Your task to perform on an android device: Open eBay Image 0: 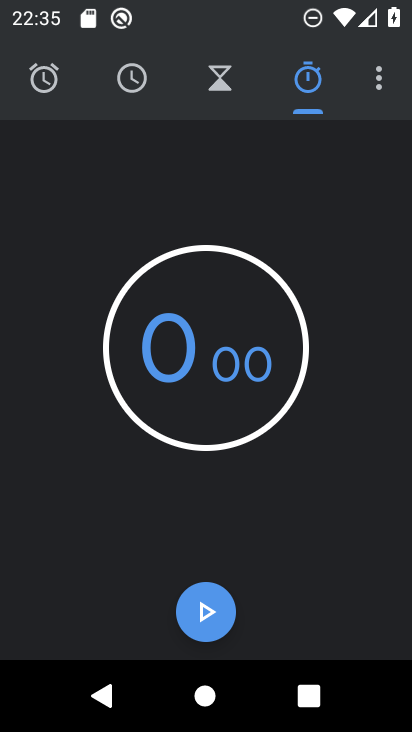
Step 0: press home button
Your task to perform on an android device: Open eBay Image 1: 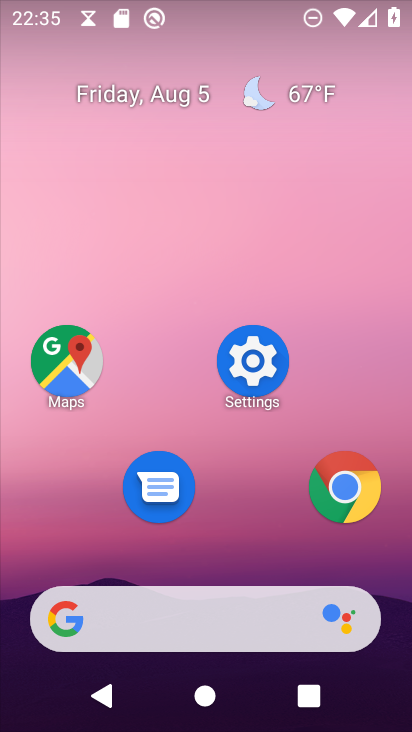
Step 1: click (347, 492)
Your task to perform on an android device: Open eBay Image 2: 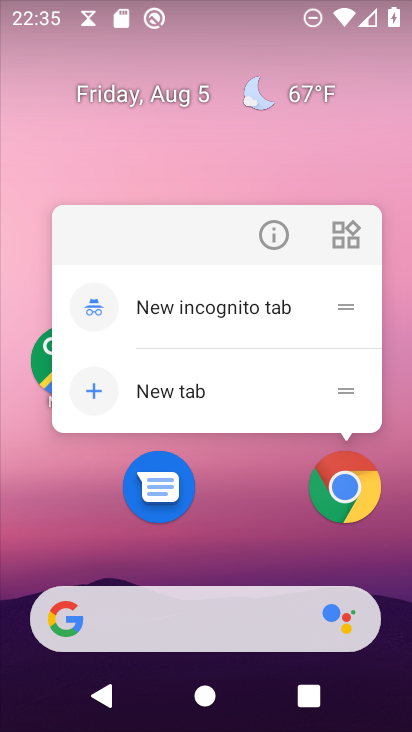
Step 2: click (347, 493)
Your task to perform on an android device: Open eBay Image 3: 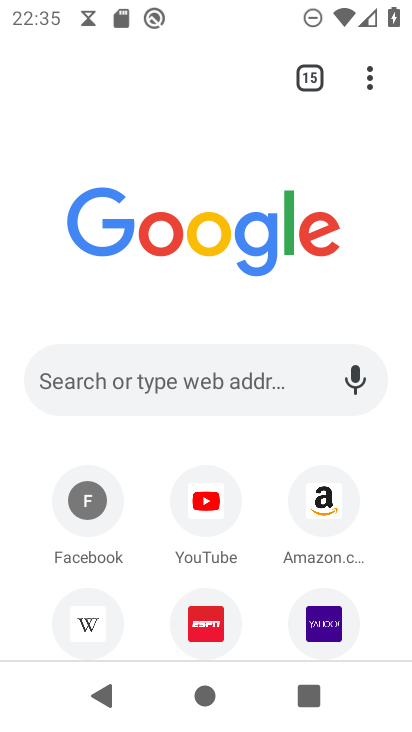
Step 3: drag from (256, 497) to (349, 193)
Your task to perform on an android device: Open eBay Image 4: 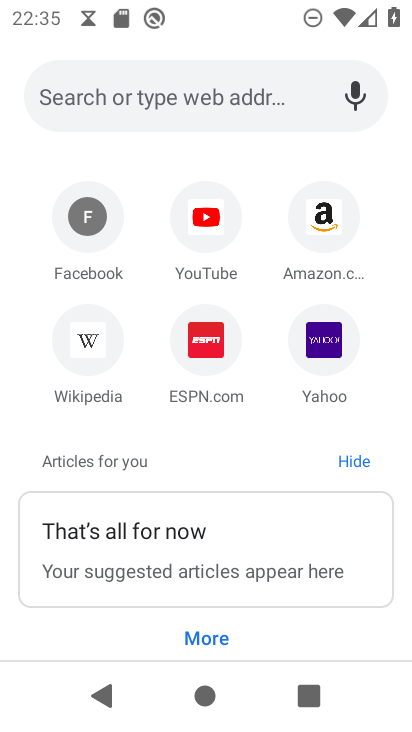
Step 4: drag from (271, 223) to (265, 388)
Your task to perform on an android device: Open eBay Image 5: 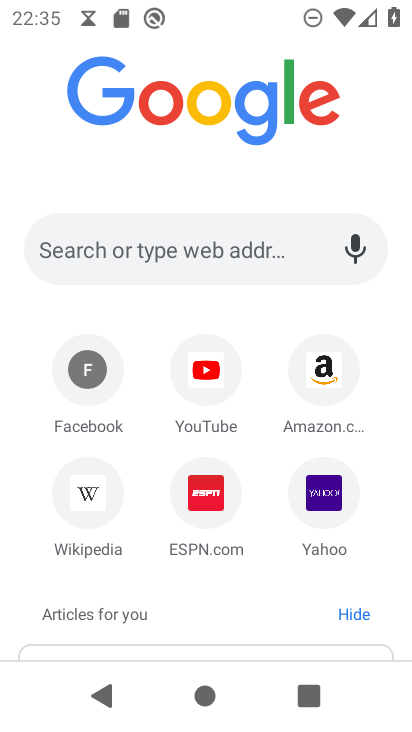
Step 5: click (114, 256)
Your task to perform on an android device: Open eBay Image 6: 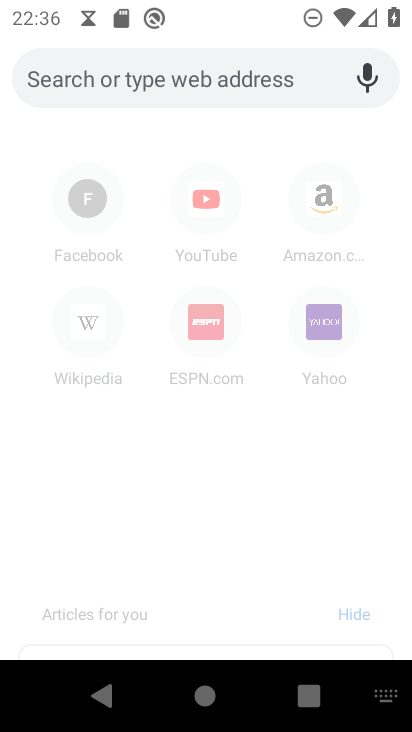
Step 6: type "eBay"
Your task to perform on an android device: Open eBay Image 7: 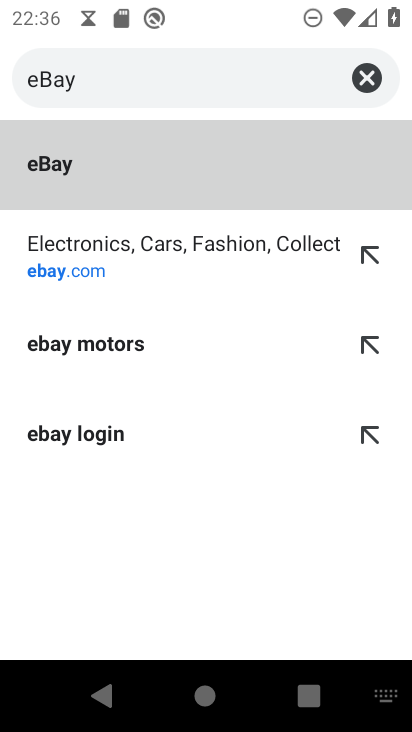
Step 7: click (78, 164)
Your task to perform on an android device: Open eBay Image 8: 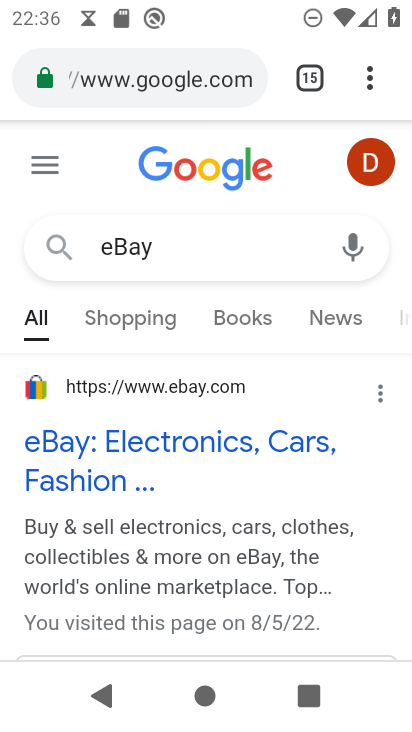
Step 8: click (228, 435)
Your task to perform on an android device: Open eBay Image 9: 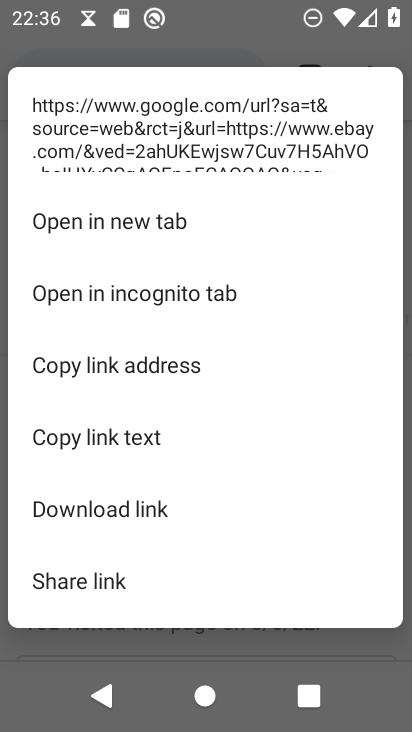
Step 9: click (235, 639)
Your task to perform on an android device: Open eBay Image 10: 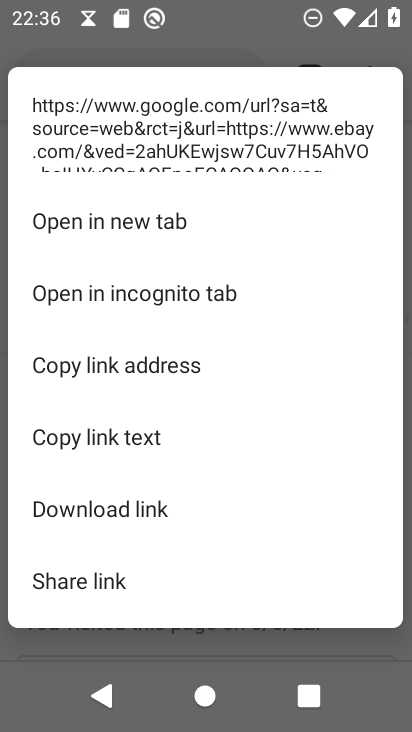
Step 10: press back button
Your task to perform on an android device: Open eBay Image 11: 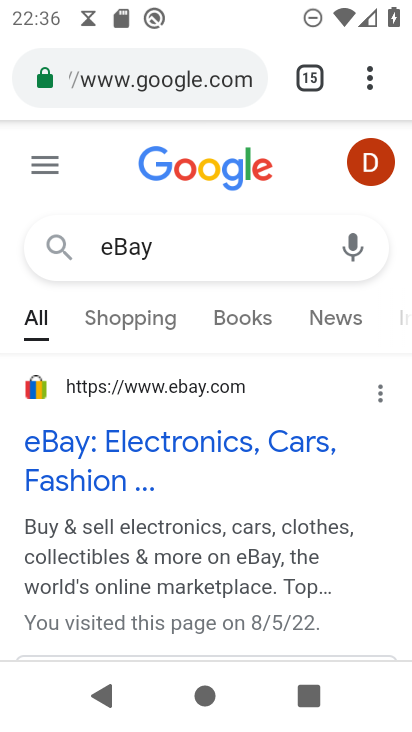
Step 11: click (180, 440)
Your task to perform on an android device: Open eBay Image 12: 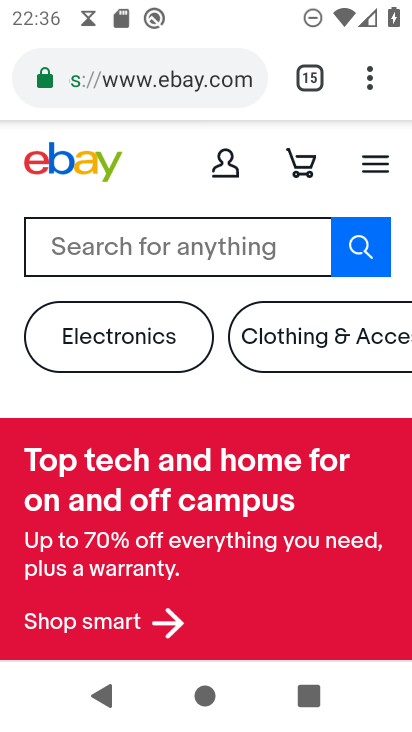
Step 12: drag from (263, 592) to (382, 96)
Your task to perform on an android device: Open eBay Image 13: 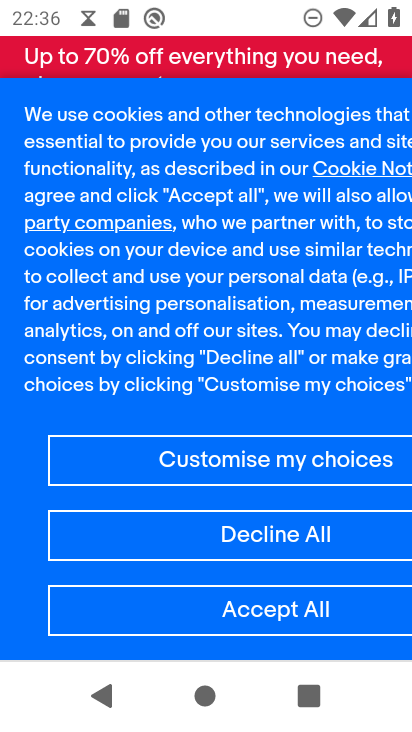
Step 13: click (287, 611)
Your task to perform on an android device: Open eBay Image 14: 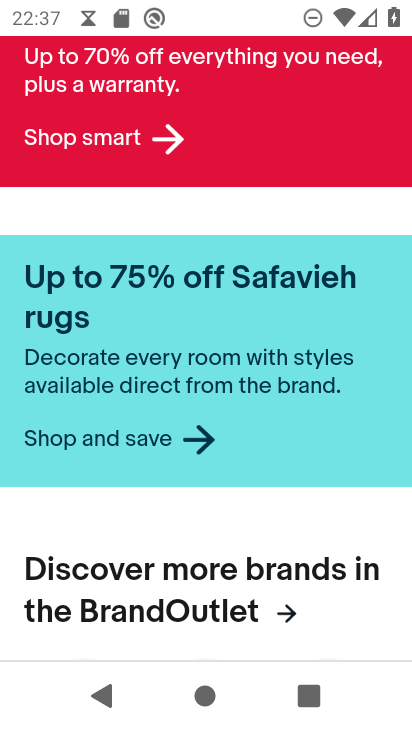
Step 14: task complete